Your task to perform on an android device: Go to Maps Image 0: 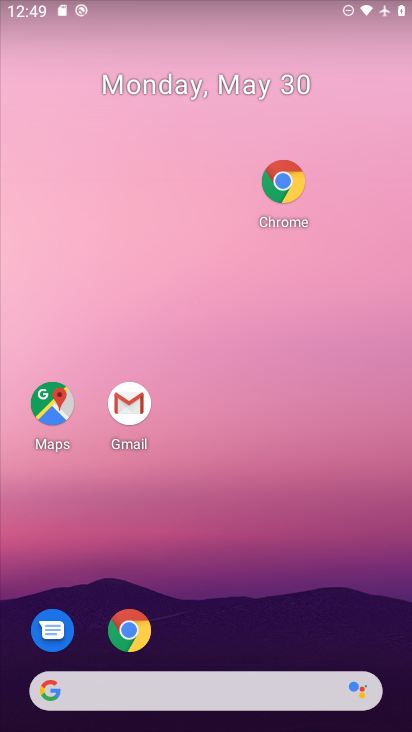
Step 0: drag from (249, 717) to (151, 171)
Your task to perform on an android device: Go to Maps Image 1: 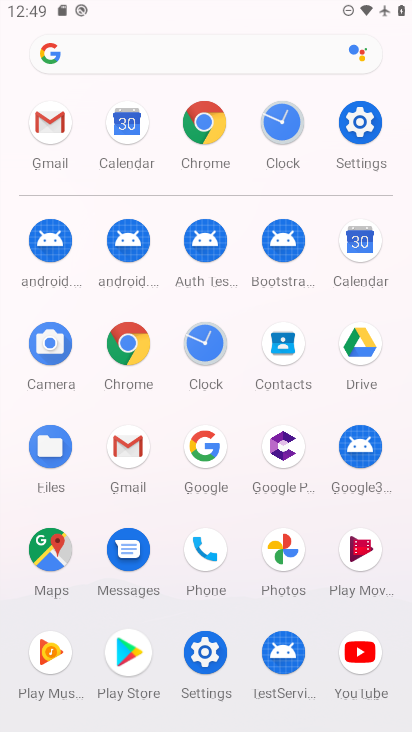
Step 1: click (63, 554)
Your task to perform on an android device: Go to Maps Image 2: 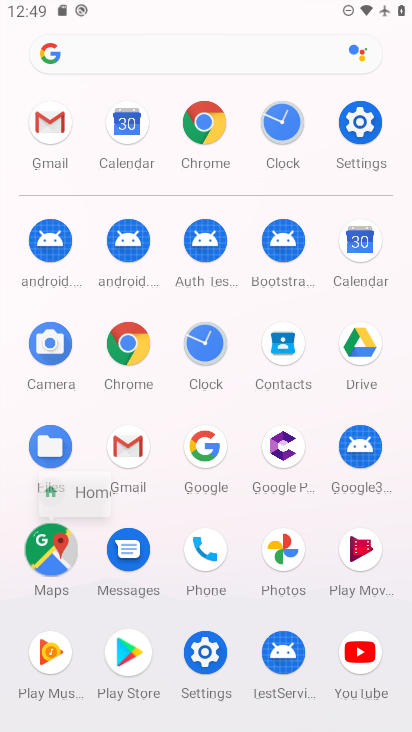
Step 2: click (57, 553)
Your task to perform on an android device: Go to Maps Image 3: 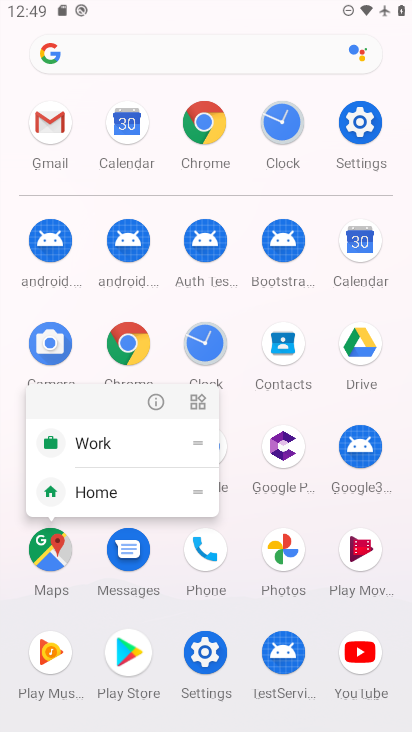
Step 3: click (52, 532)
Your task to perform on an android device: Go to Maps Image 4: 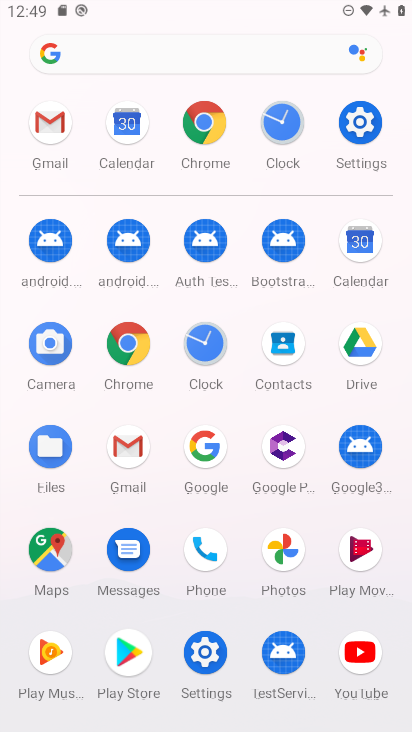
Step 4: click (50, 530)
Your task to perform on an android device: Go to Maps Image 5: 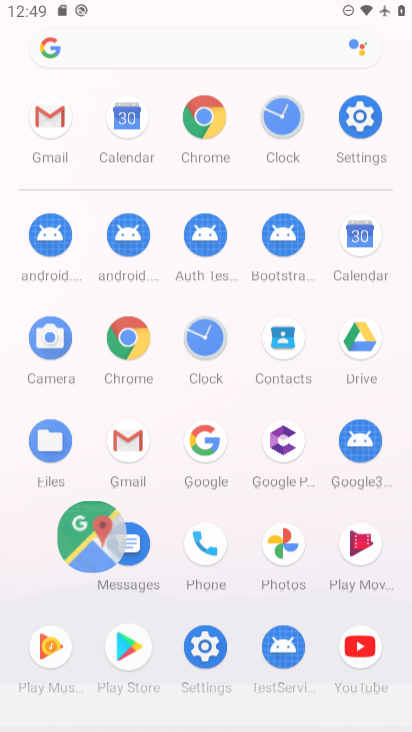
Step 5: click (47, 525)
Your task to perform on an android device: Go to Maps Image 6: 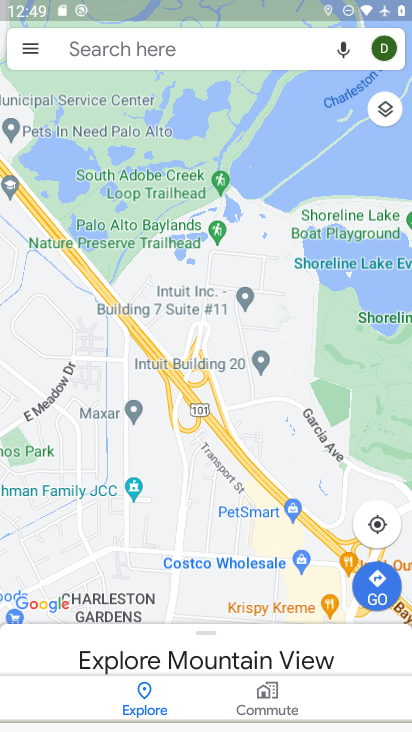
Step 6: task complete